Your task to perform on an android device: Go to privacy settings Image 0: 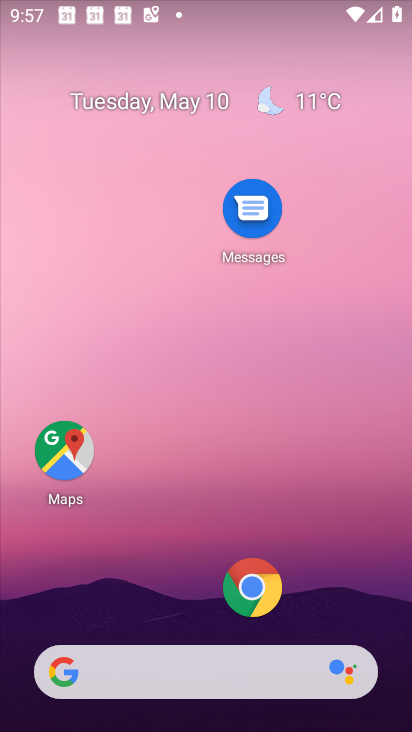
Step 0: drag from (178, 590) to (226, 9)
Your task to perform on an android device: Go to privacy settings Image 1: 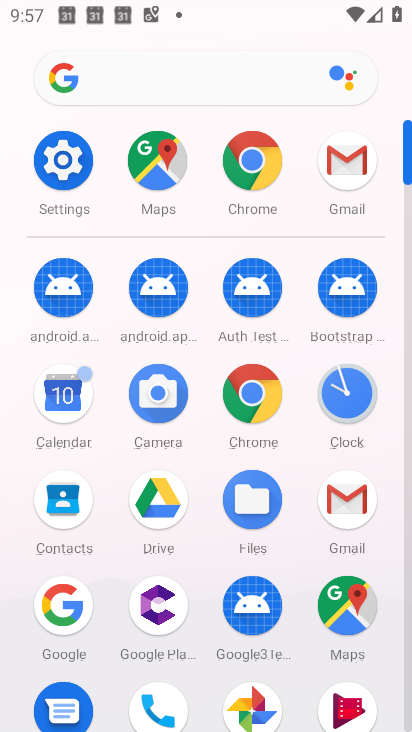
Step 1: click (58, 201)
Your task to perform on an android device: Go to privacy settings Image 2: 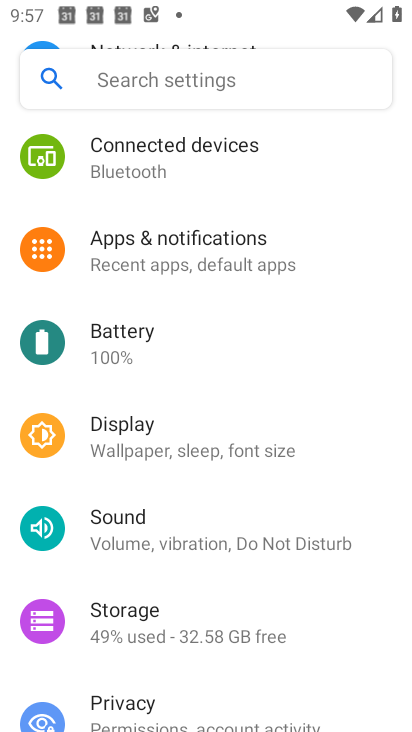
Step 2: click (124, 699)
Your task to perform on an android device: Go to privacy settings Image 3: 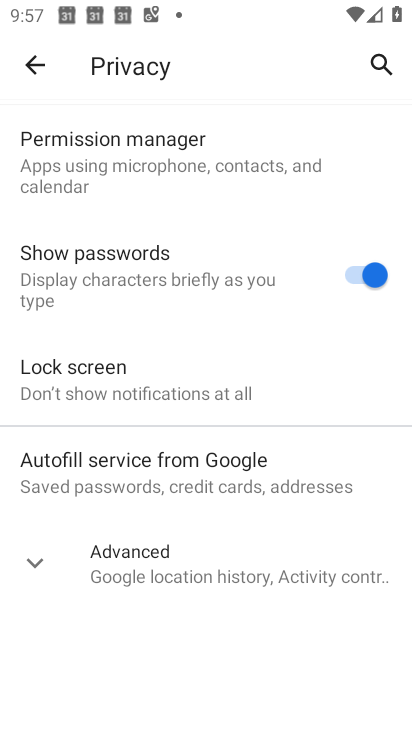
Step 3: task complete